Your task to perform on an android device: turn on translation in the chrome app Image 0: 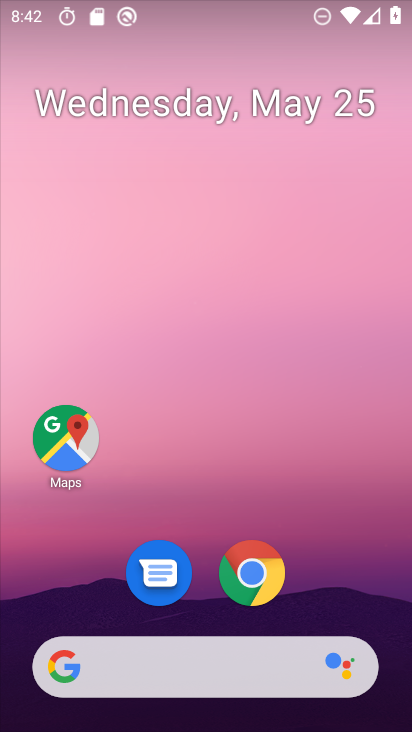
Step 0: click (244, 566)
Your task to perform on an android device: turn on translation in the chrome app Image 1: 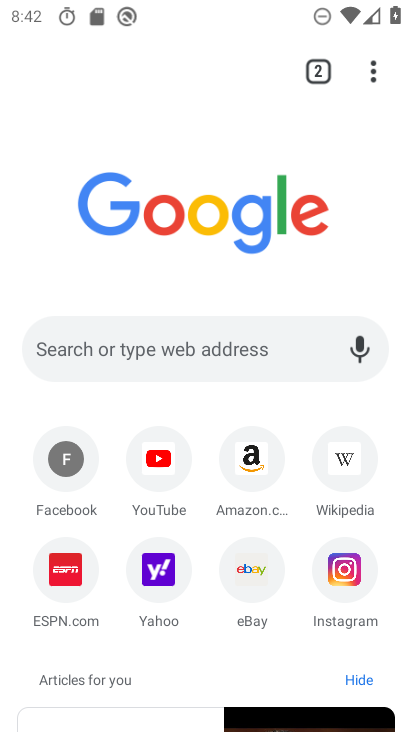
Step 1: click (370, 61)
Your task to perform on an android device: turn on translation in the chrome app Image 2: 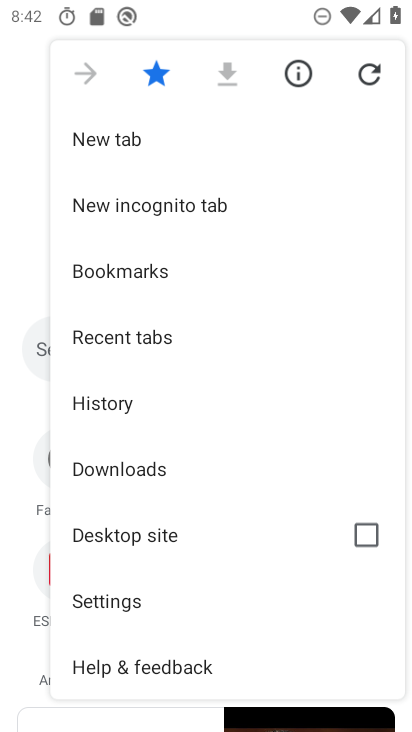
Step 2: click (126, 604)
Your task to perform on an android device: turn on translation in the chrome app Image 3: 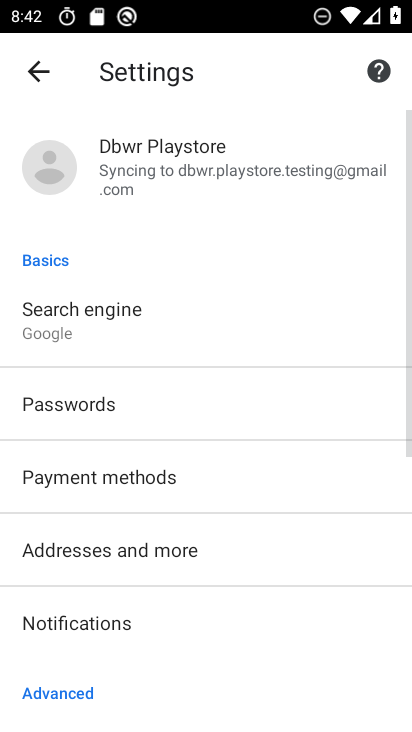
Step 3: drag from (246, 653) to (261, 271)
Your task to perform on an android device: turn on translation in the chrome app Image 4: 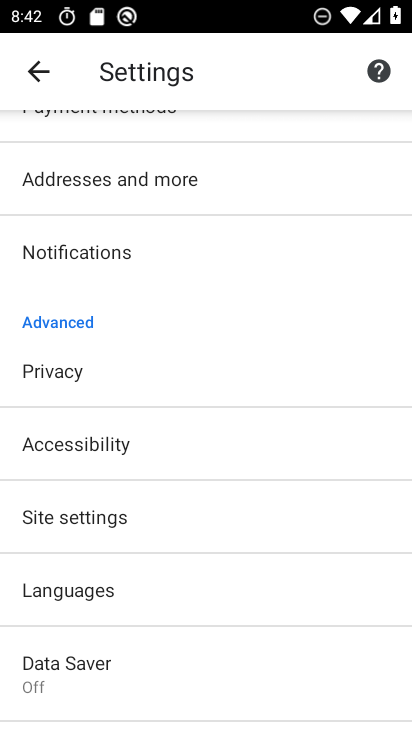
Step 4: click (57, 585)
Your task to perform on an android device: turn on translation in the chrome app Image 5: 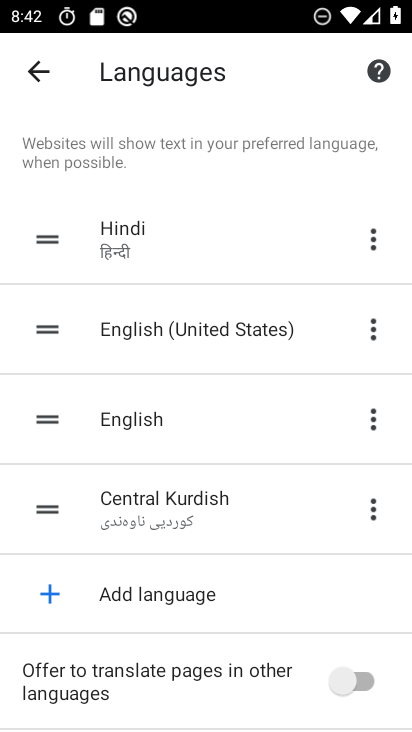
Step 5: click (385, 680)
Your task to perform on an android device: turn on translation in the chrome app Image 6: 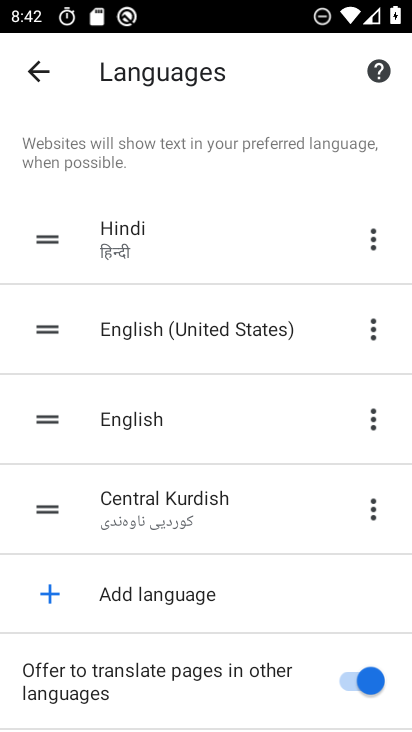
Step 6: click (365, 679)
Your task to perform on an android device: turn on translation in the chrome app Image 7: 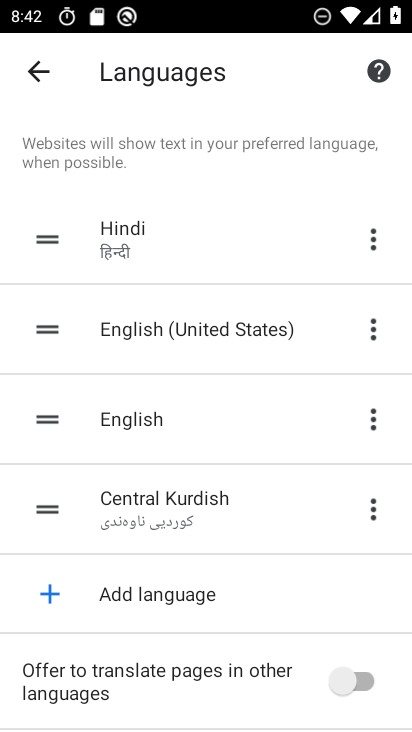
Step 7: click (372, 685)
Your task to perform on an android device: turn on translation in the chrome app Image 8: 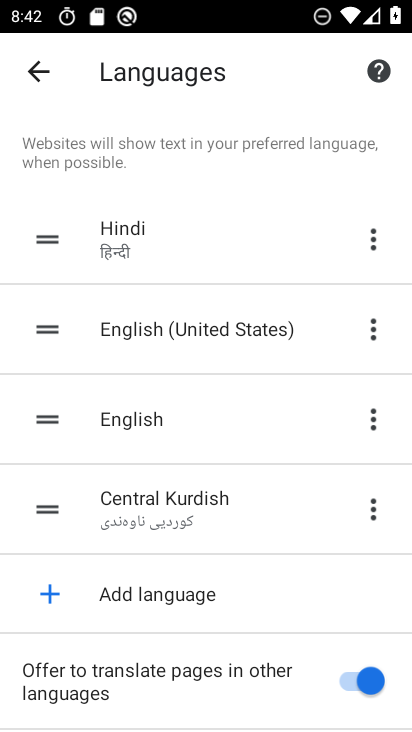
Step 8: task complete